Your task to perform on an android device: add a label to a message in the gmail app Image 0: 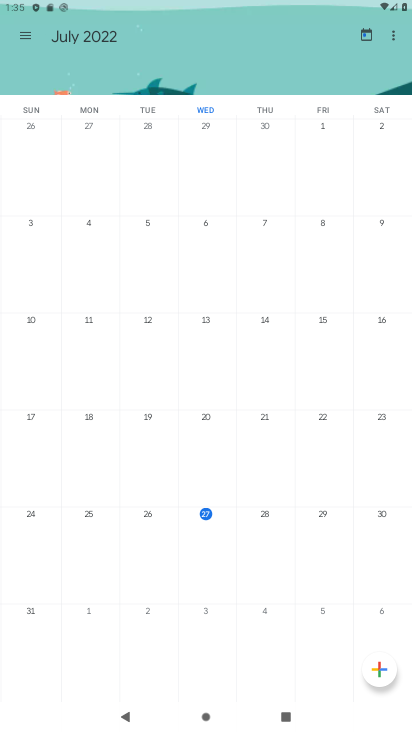
Step 0: press home button
Your task to perform on an android device: add a label to a message in the gmail app Image 1: 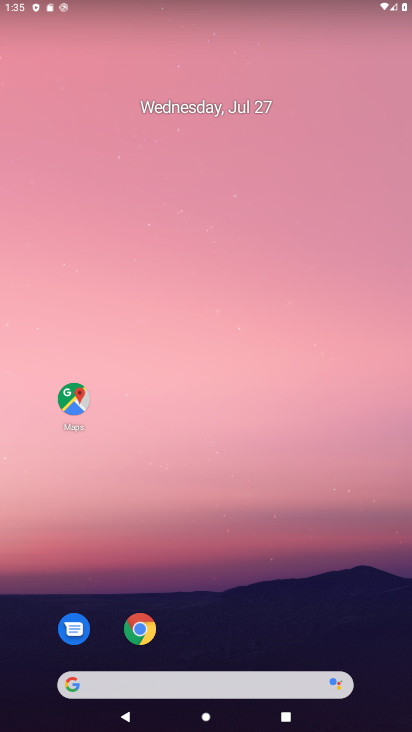
Step 1: drag from (245, 609) to (225, 15)
Your task to perform on an android device: add a label to a message in the gmail app Image 2: 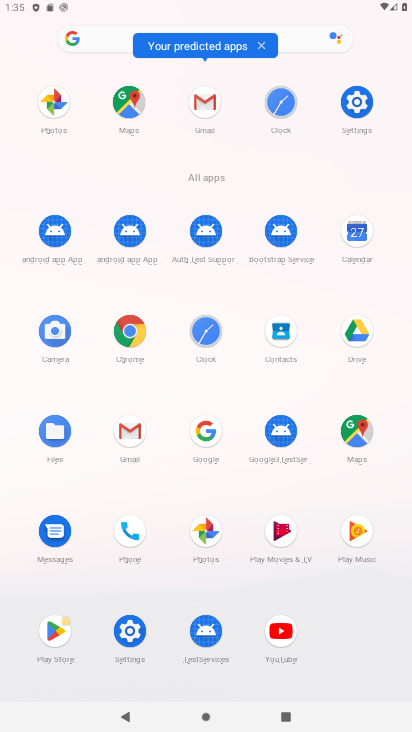
Step 2: click (195, 94)
Your task to perform on an android device: add a label to a message in the gmail app Image 3: 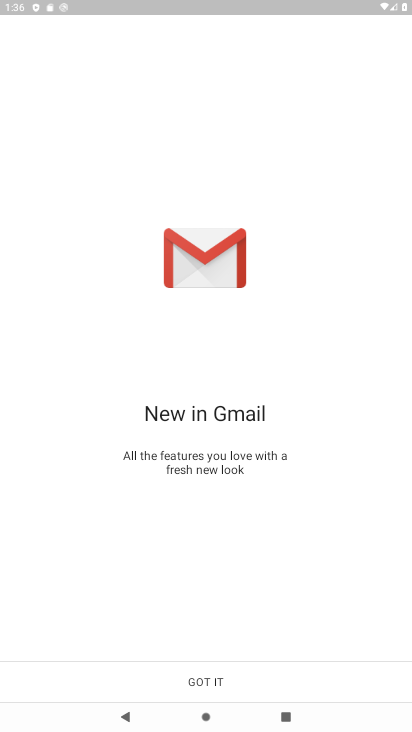
Step 3: click (252, 670)
Your task to perform on an android device: add a label to a message in the gmail app Image 4: 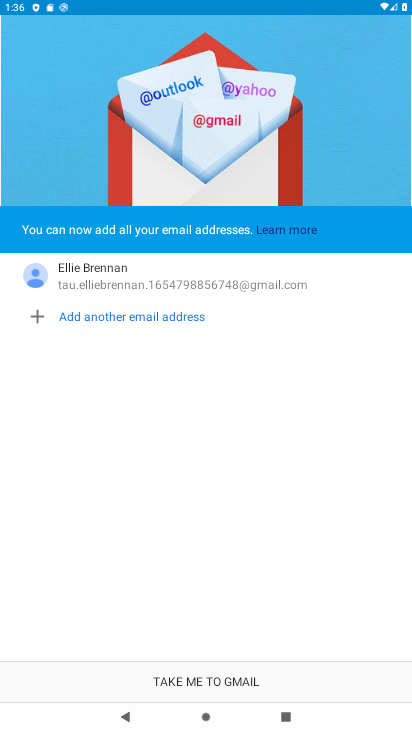
Step 4: click (252, 670)
Your task to perform on an android device: add a label to a message in the gmail app Image 5: 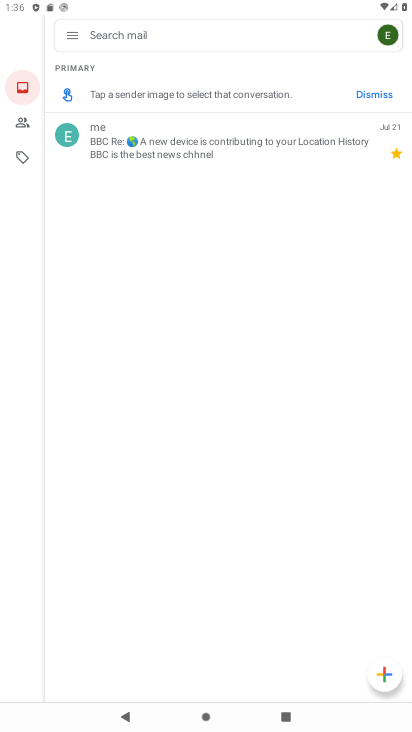
Step 5: click (78, 43)
Your task to perform on an android device: add a label to a message in the gmail app Image 6: 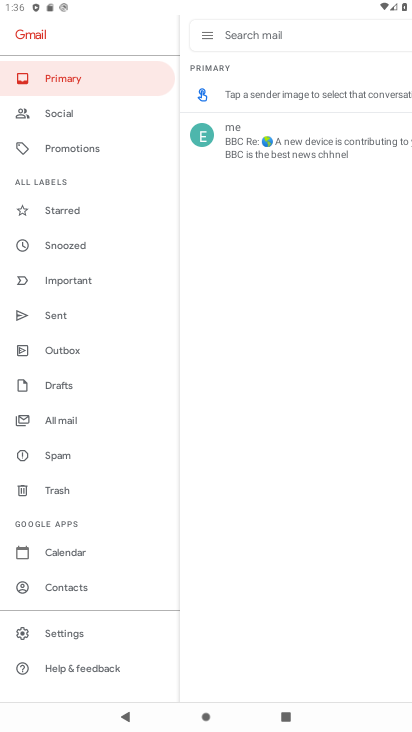
Step 6: click (62, 420)
Your task to perform on an android device: add a label to a message in the gmail app Image 7: 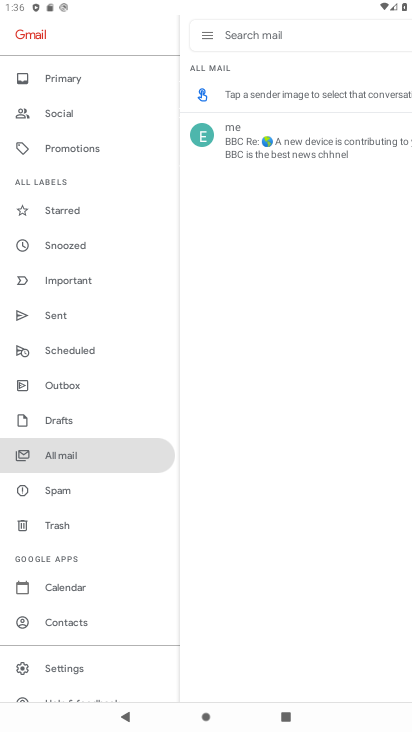
Step 7: click (213, 39)
Your task to perform on an android device: add a label to a message in the gmail app Image 8: 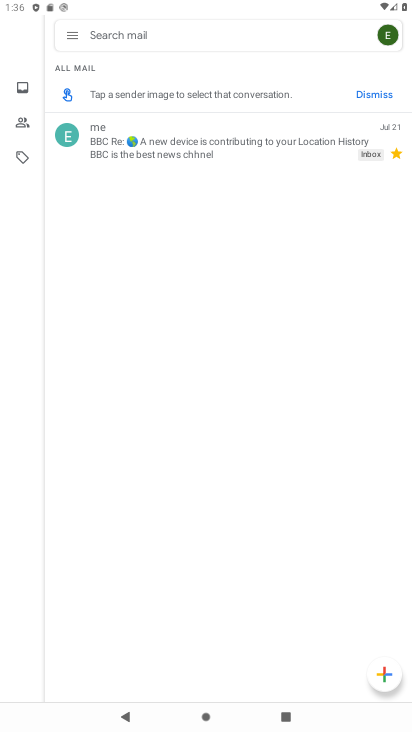
Step 8: click (195, 131)
Your task to perform on an android device: add a label to a message in the gmail app Image 9: 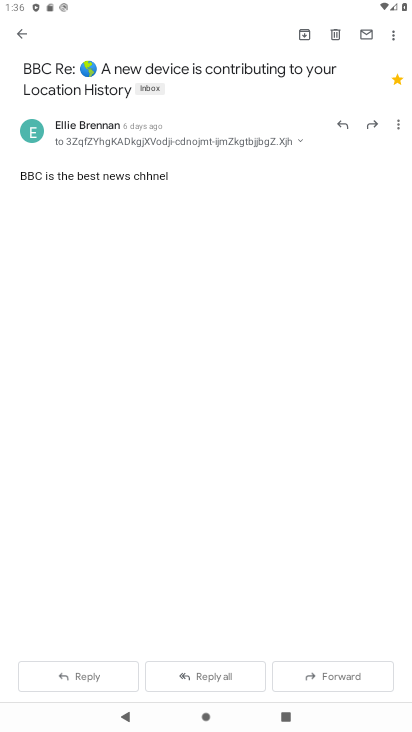
Step 9: task complete